Your task to perform on an android device: Go to calendar. Show me events next week Image 0: 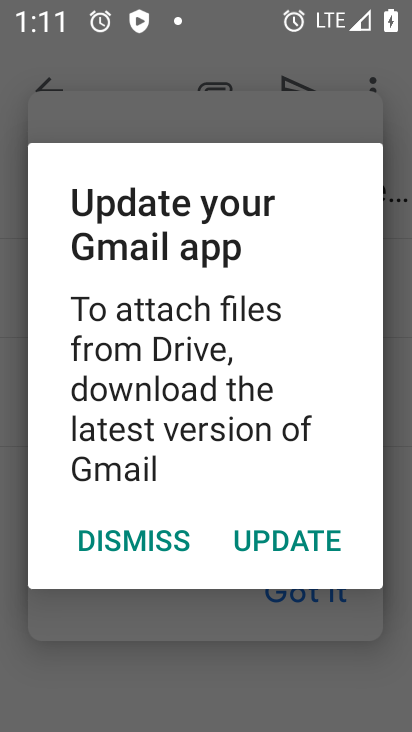
Step 0: press home button
Your task to perform on an android device: Go to calendar. Show me events next week Image 1: 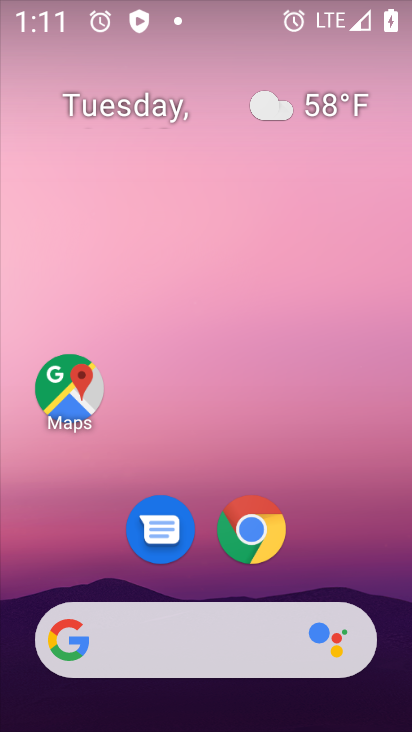
Step 1: drag from (251, 609) to (321, 110)
Your task to perform on an android device: Go to calendar. Show me events next week Image 2: 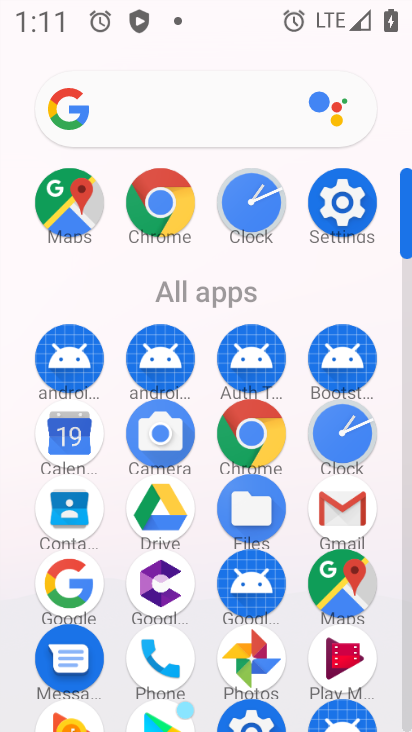
Step 2: click (229, 302)
Your task to perform on an android device: Go to calendar. Show me events next week Image 3: 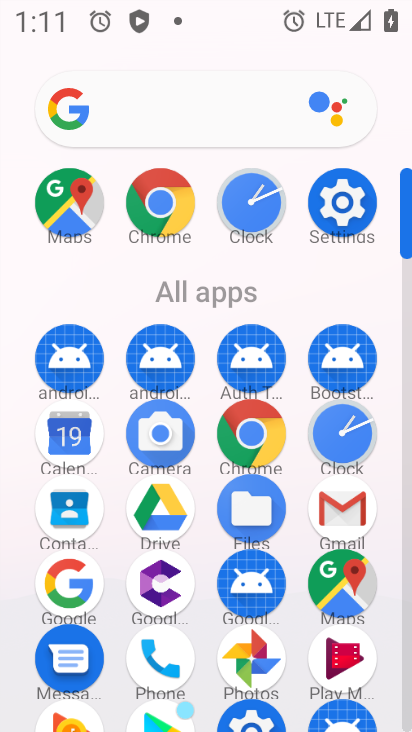
Step 3: click (83, 449)
Your task to perform on an android device: Go to calendar. Show me events next week Image 4: 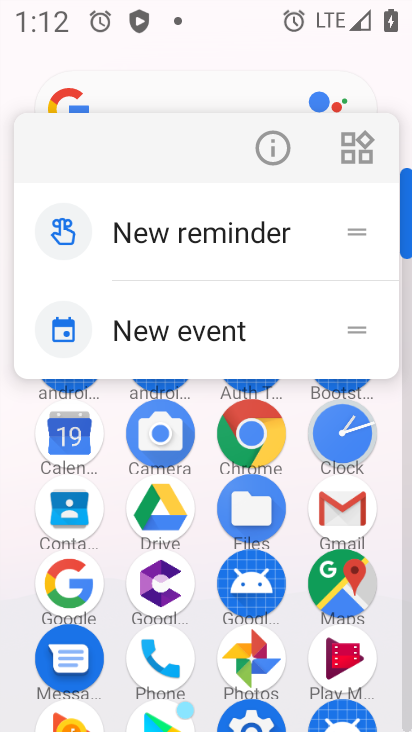
Step 4: click (54, 453)
Your task to perform on an android device: Go to calendar. Show me events next week Image 5: 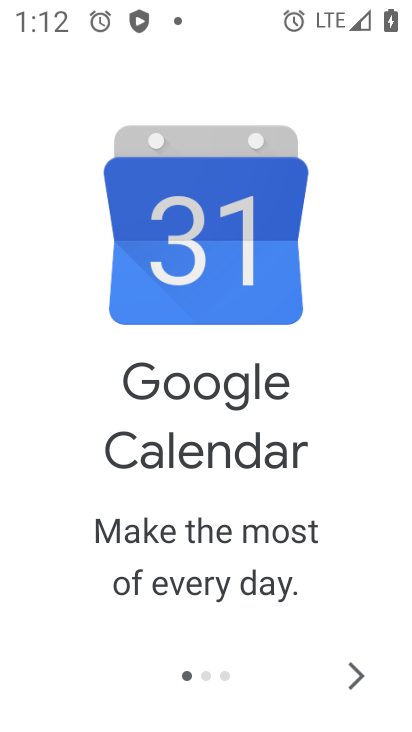
Step 5: click (345, 711)
Your task to perform on an android device: Go to calendar. Show me events next week Image 6: 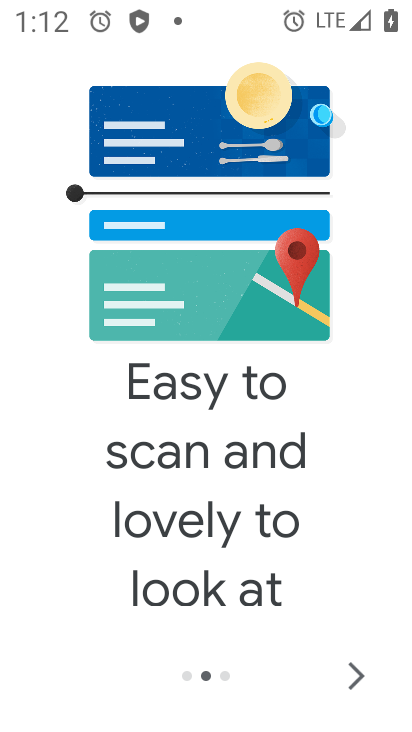
Step 6: click (347, 690)
Your task to perform on an android device: Go to calendar. Show me events next week Image 7: 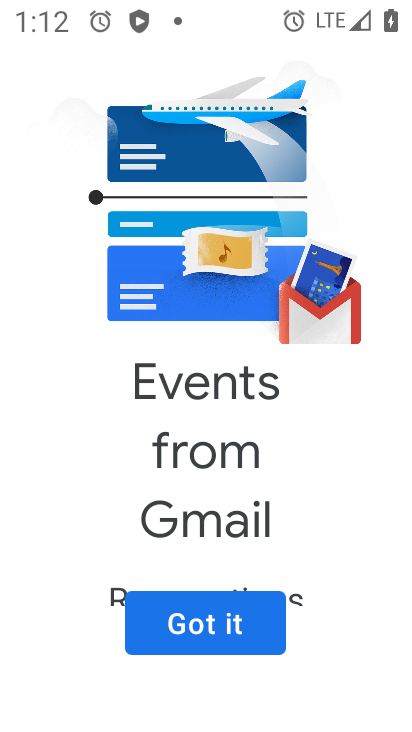
Step 7: click (252, 638)
Your task to perform on an android device: Go to calendar. Show me events next week Image 8: 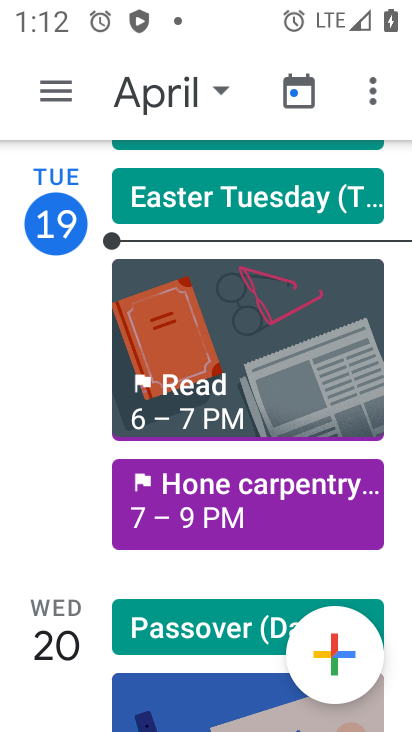
Step 8: click (278, 123)
Your task to perform on an android device: Go to calendar. Show me events next week Image 9: 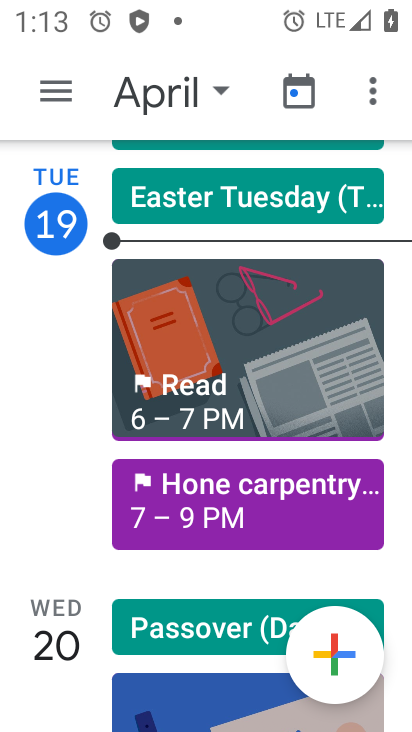
Step 9: click (224, 99)
Your task to perform on an android device: Go to calendar. Show me events next week Image 10: 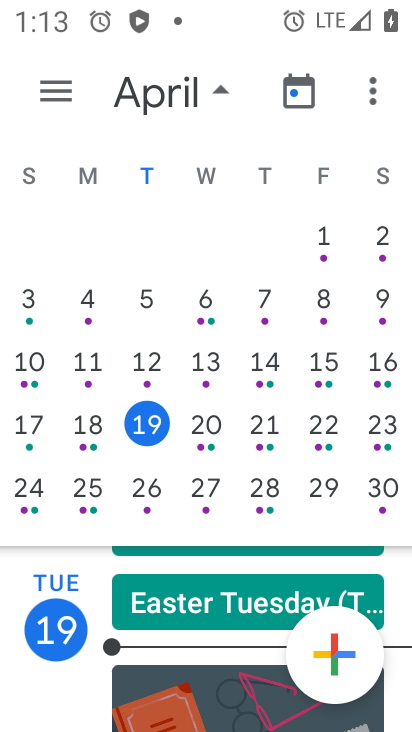
Step 10: click (41, 493)
Your task to perform on an android device: Go to calendar. Show me events next week Image 11: 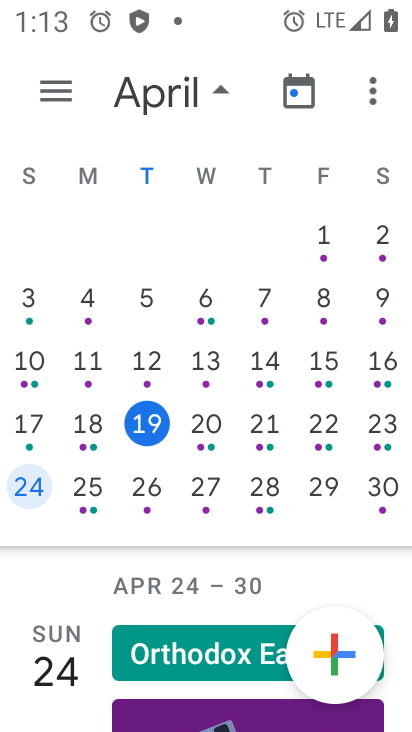
Step 11: task complete